Your task to perform on an android device: Open Amazon Image 0: 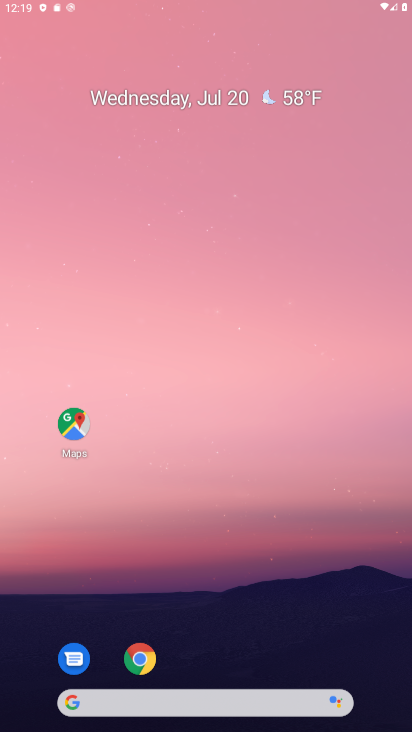
Step 0: press home button
Your task to perform on an android device: Open Amazon Image 1: 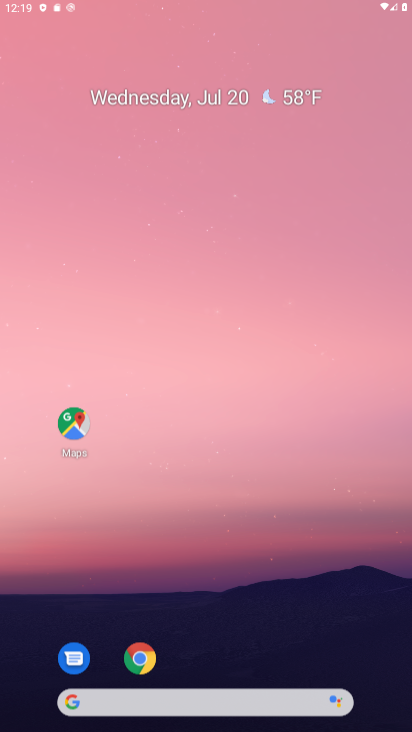
Step 1: drag from (205, 668) to (196, 78)
Your task to perform on an android device: Open Amazon Image 2: 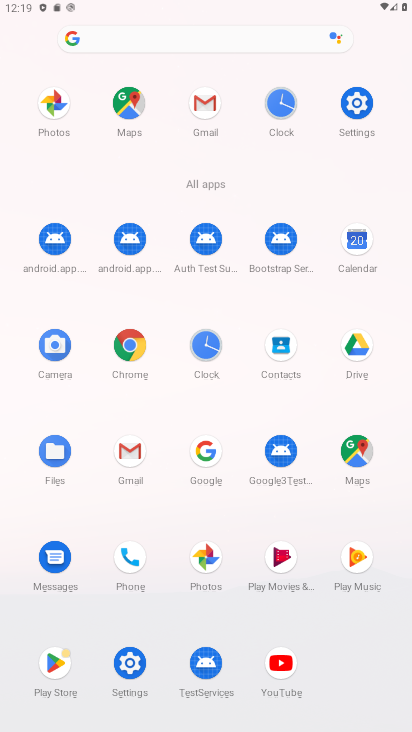
Step 2: click (127, 337)
Your task to perform on an android device: Open Amazon Image 3: 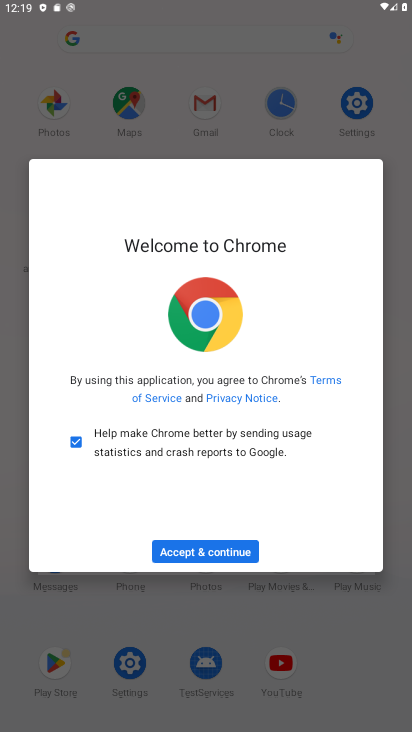
Step 3: click (201, 548)
Your task to perform on an android device: Open Amazon Image 4: 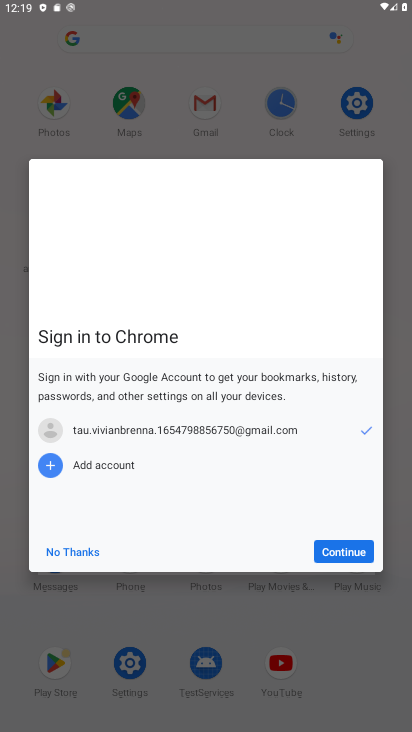
Step 4: click (342, 550)
Your task to perform on an android device: Open Amazon Image 5: 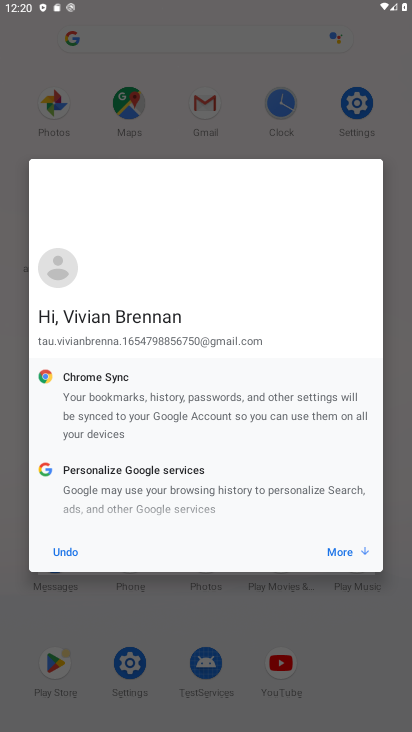
Step 5: click (343, 549)
Your task to perform on an android device: Open Amazon Image 6: 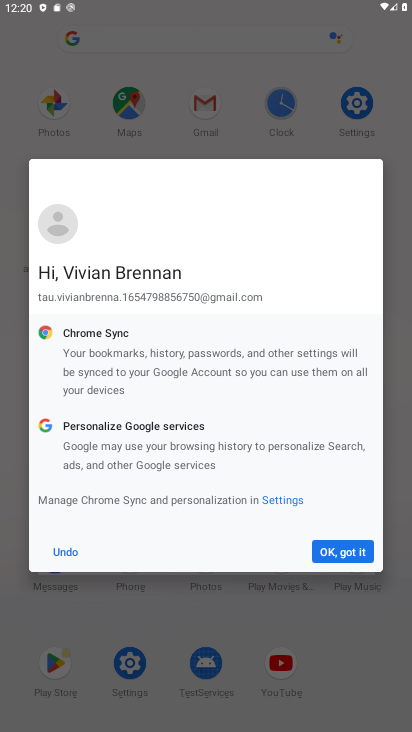
Step 6: click (343, 549)
Your task to perform on an android device: Open Amazon Image 7: 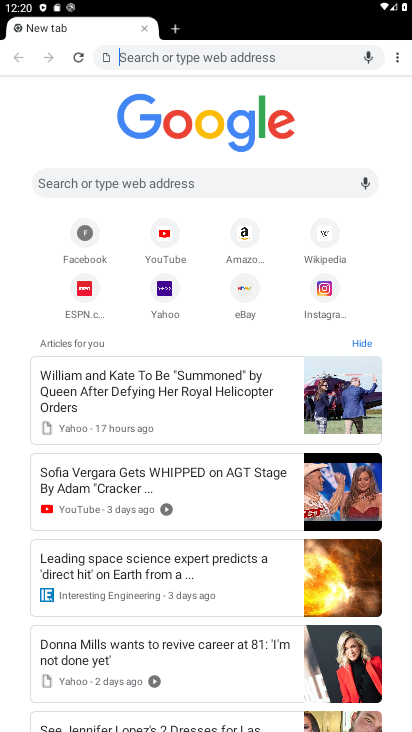
Step 7: click (244, 233)
Your task to perform on an android device: Open Amazon Image 8: 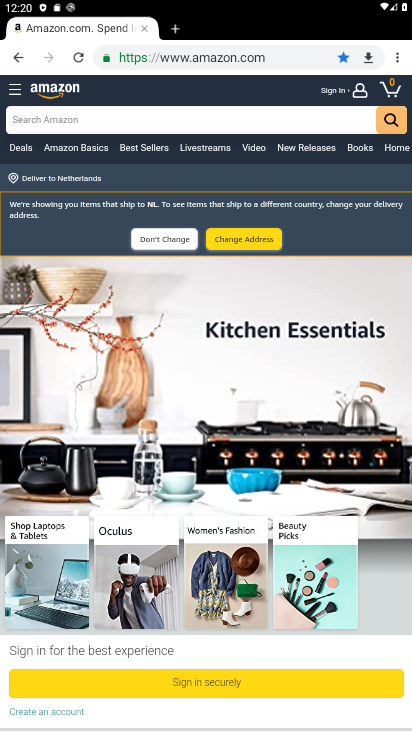
Step 8: task complete